Your task to perform on an android device: Open notification settings Image 0: 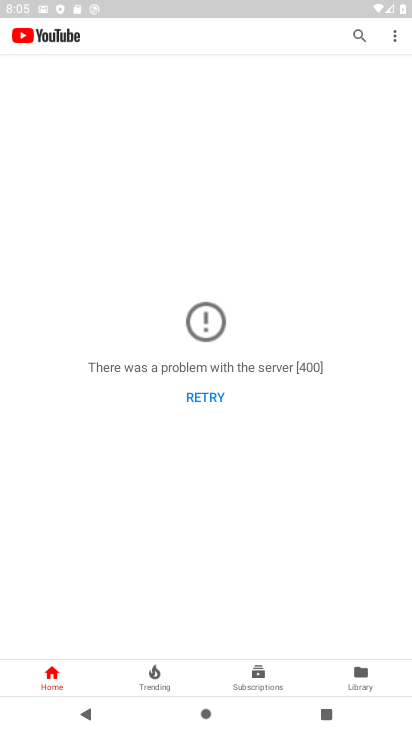
Step 0: press home button
Your task to perform on an android device: Open notification settings Image 1: 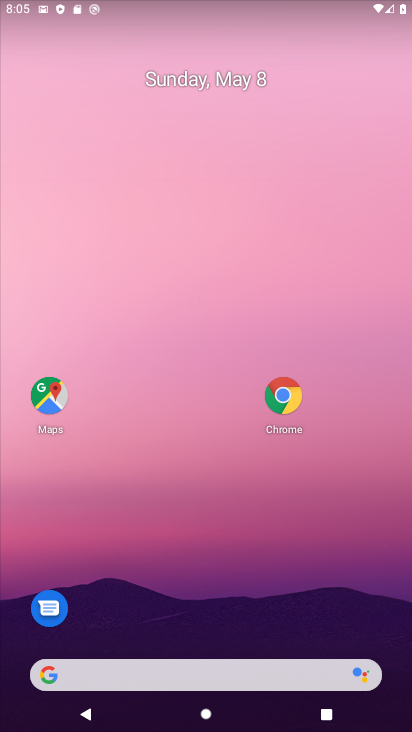
Step 1: drag from (146, 677) to (369, 165)
Your task to perform on an android device: Open notification settings Image 2: 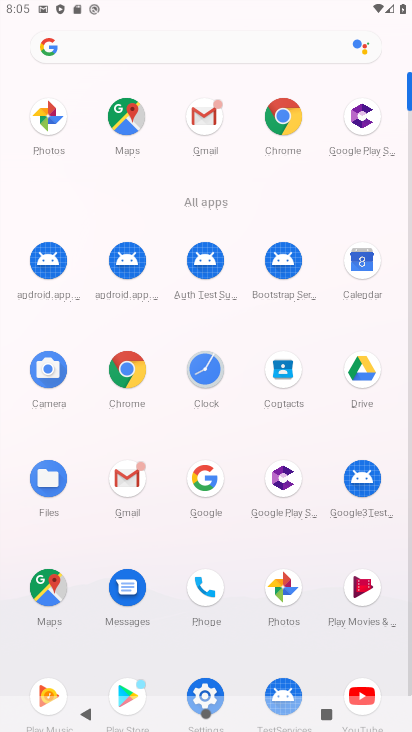
Step 2: click (203, 689)
Your task to perform on an android device: Open notification settings Image 3: 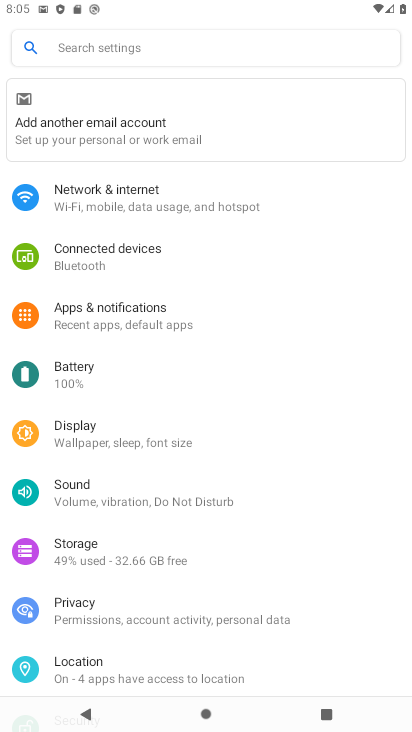
Step 3: click (146, 311)
Your task to perform on an android device: Open notification settings Image 4: 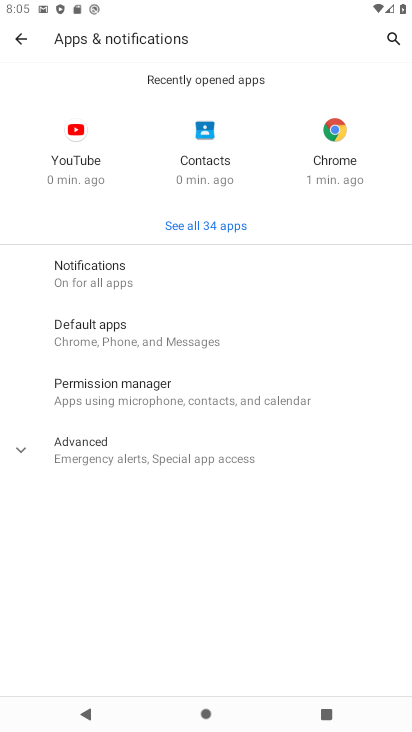
Step 4: click (117, 275)
Your task to perform on an android device: Open notification settings Image 5: 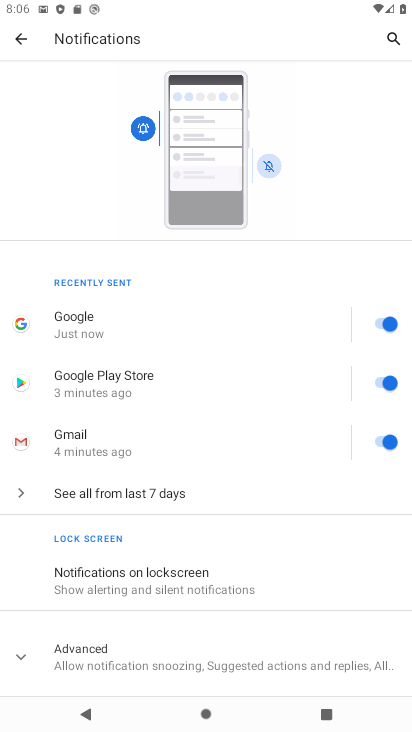
Step 5: task complete